Your task to perform on an android device: visit the assistant section in the google photos Image 0: 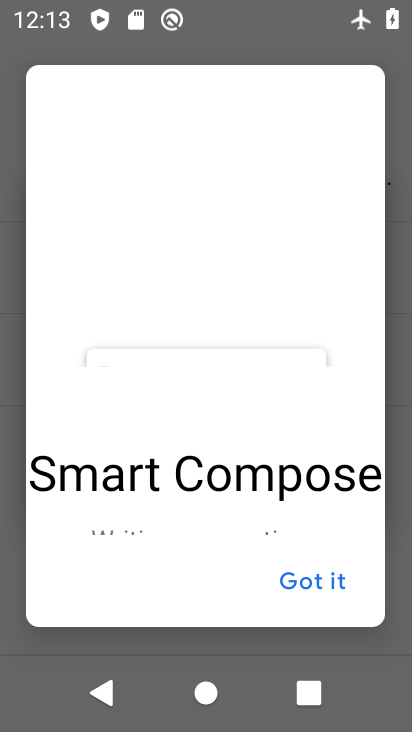
Step 0: click (320, 577)
Your task to perform on an android device: visit the assistant section in the google photos Image 1: 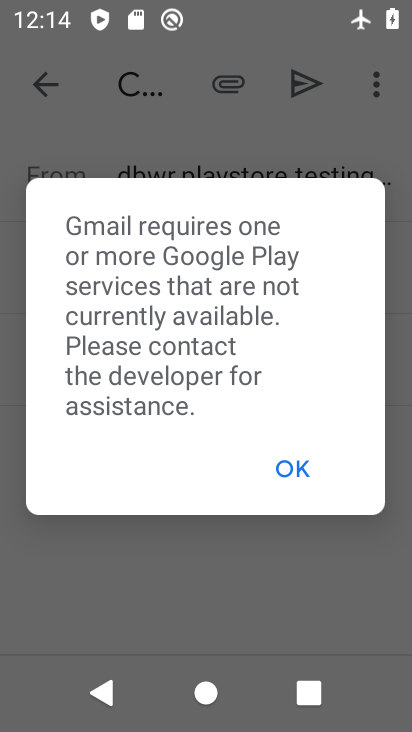
Step 1: click (278, 474)
Your task to perform on an android device: visit the assistant section in the google photos Image 2: 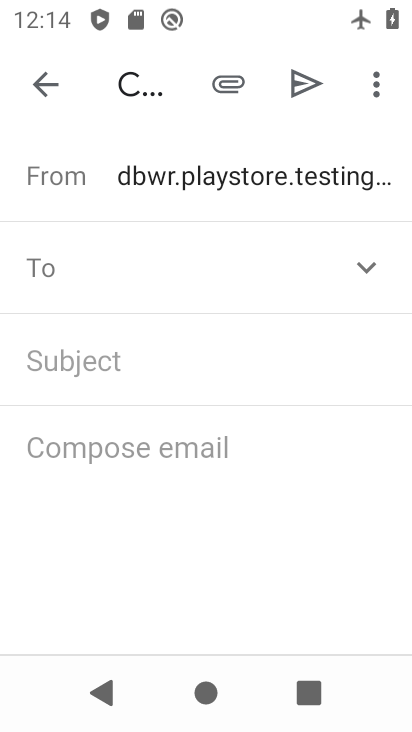
Step 2: press home button
Your task to perform on an android device: visit the assistant section in the google photos Image 3: 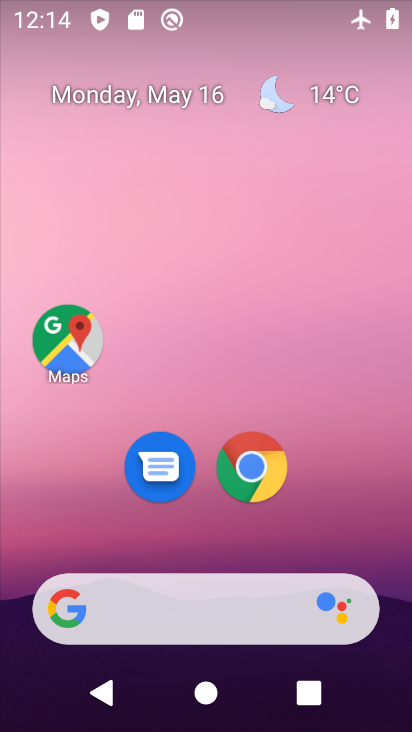
Step 3: drag from (311, 482) to (333, 227)
Your task to perform on an android device: visit the assistant section in the google photos Image 4: 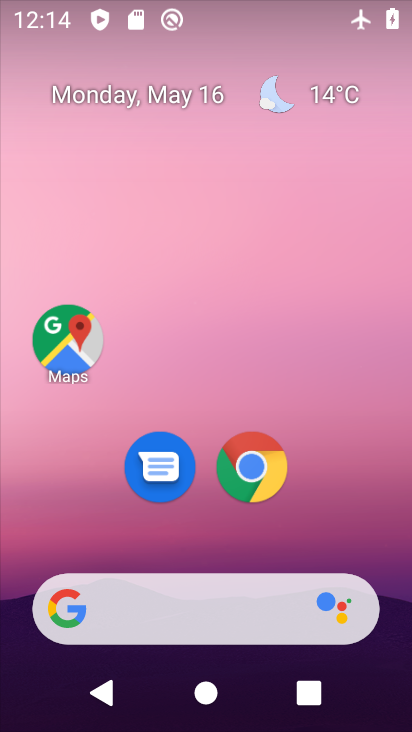
Step 4: drag from (309, 485) to (312, 165)
Your task to perform on an android device: visit the assistant section in the google photos Image 5: 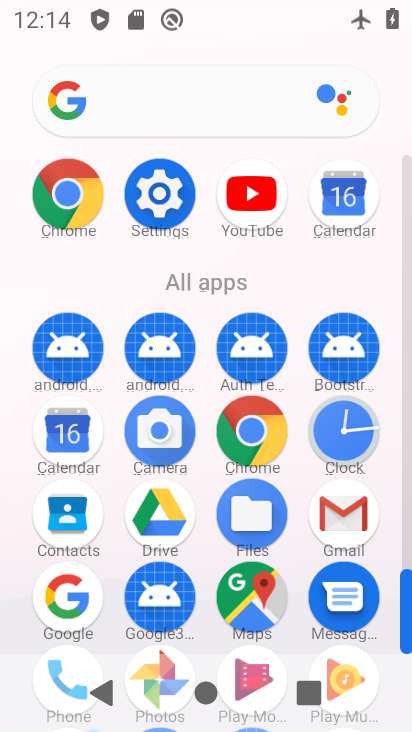
Step 5: drag from (200, 591) to (228, 253)
Your task to perform on an android device: visit the assistant section in the google photos Image 6: 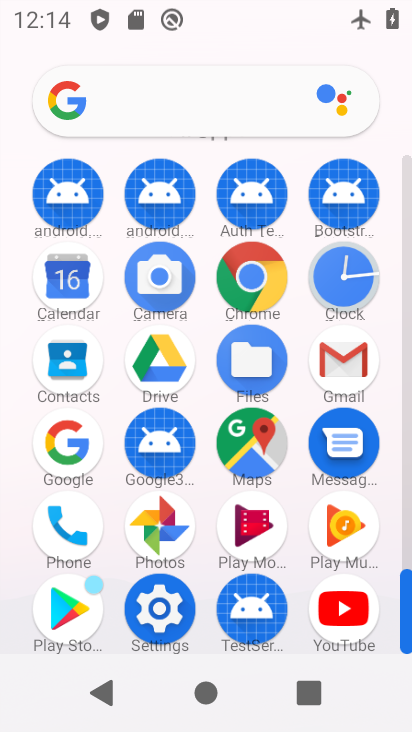
Step 6: click (159, 508)
Your task to perform on an android device: visit the assistant section in the google photos Image 7: 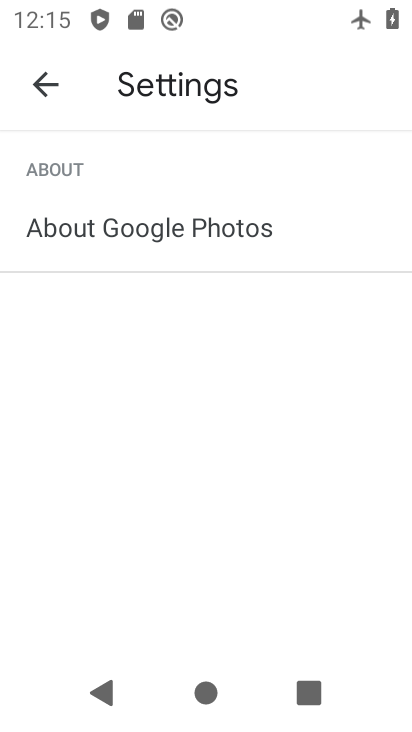
Step 7: click (34, 68)
Your task to perform on an android device: visit the assistant section in the google photos Image 8: 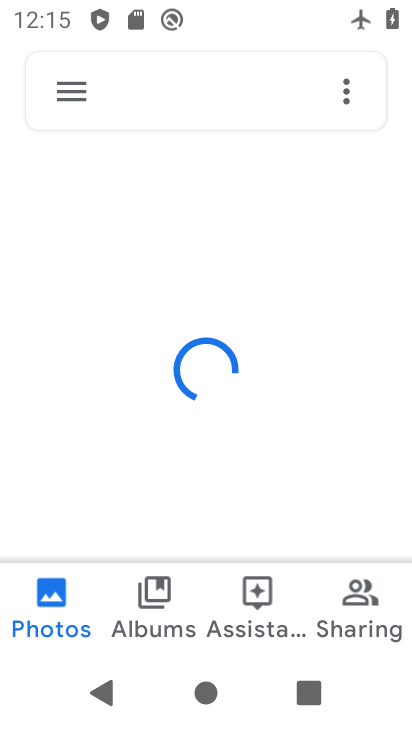
Step 8: click (247, 581)
Your task to perform on an android device: visit the assistant section in the google photos Image 9: 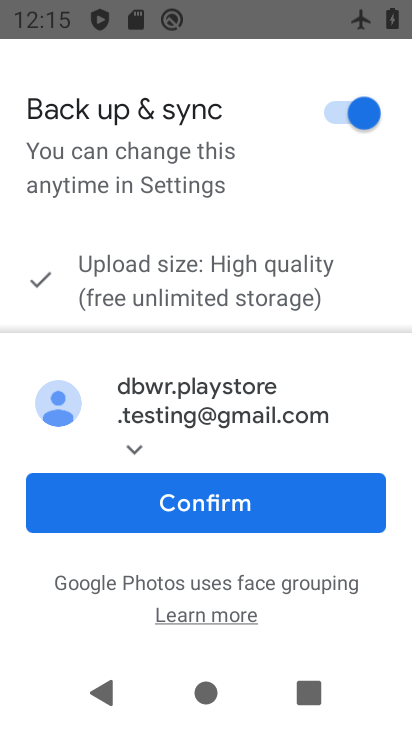
Step 9: click (234, 506)
Your task to perform on an android device: visit the assistant section in the google photos Image 10: 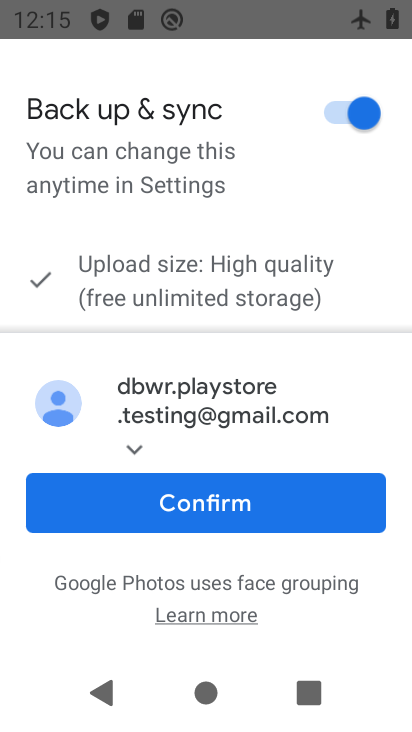
Step 10: click (235, 498)
Your task to perform on an android device: visit the assistant section in the google photos Image 11: 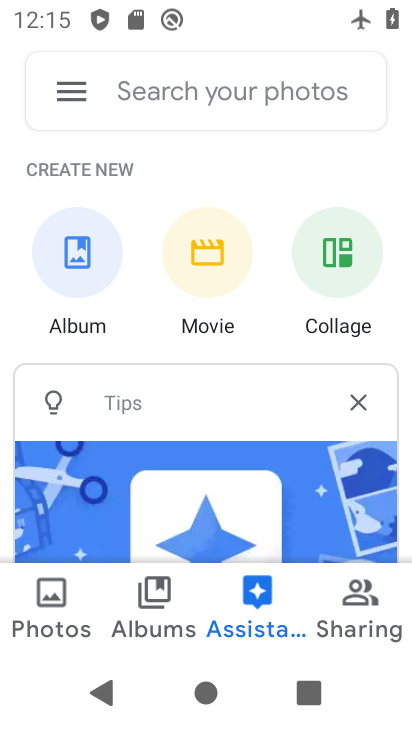
Step 11: task complete